Your task to perform on an android device: snooze an email in the gmail app Image 0: 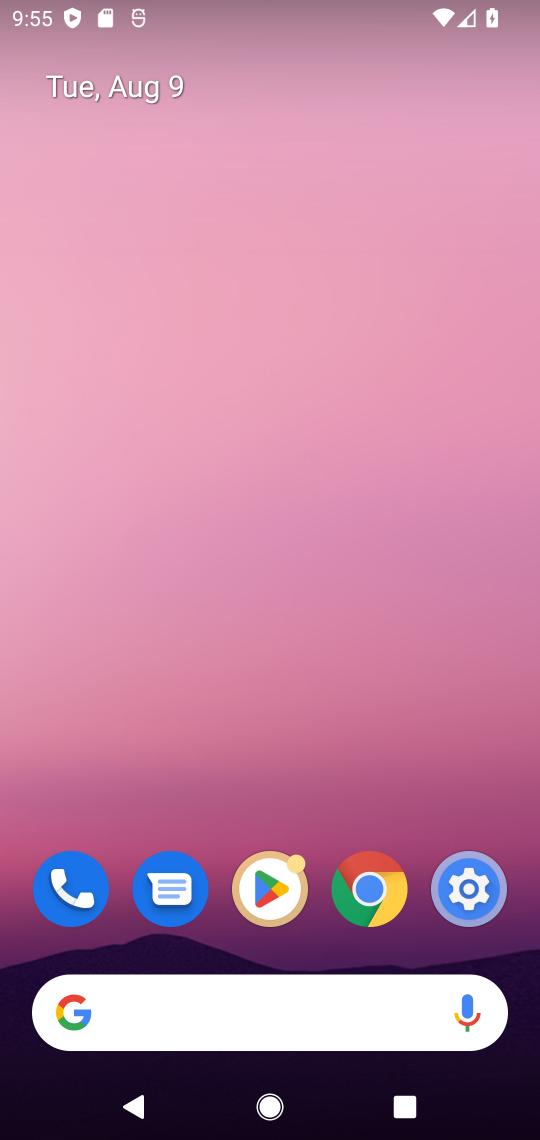
Step 0: drag from (284, 935) to (401, 50)
Your task to perform on an android device: snooze an email in the gmail app Image 1: 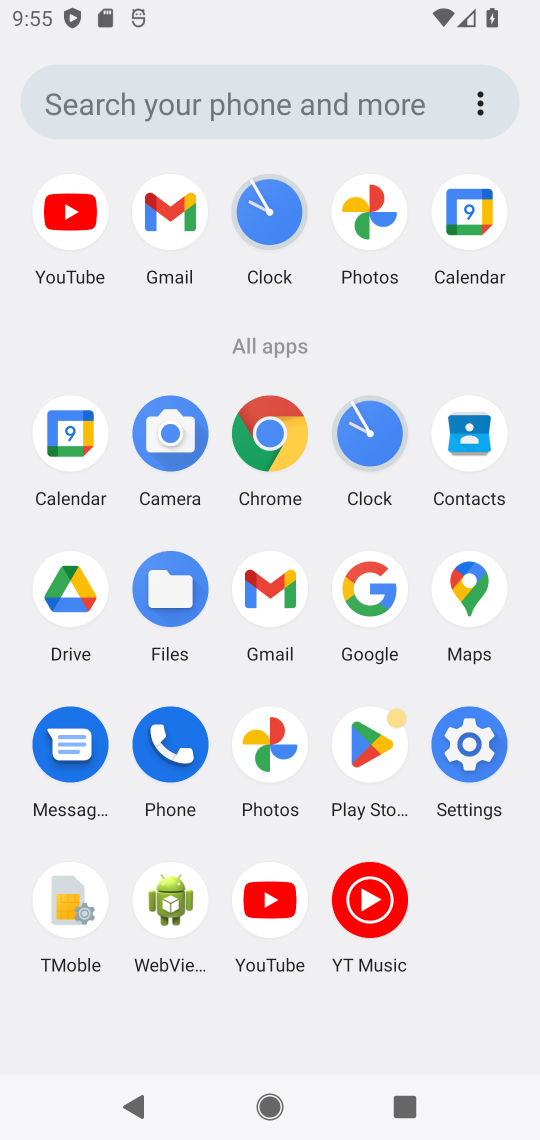
Step 1: click (188, 207)
Your task to perform on an android device: snooze an email in the gmail app Image 2: 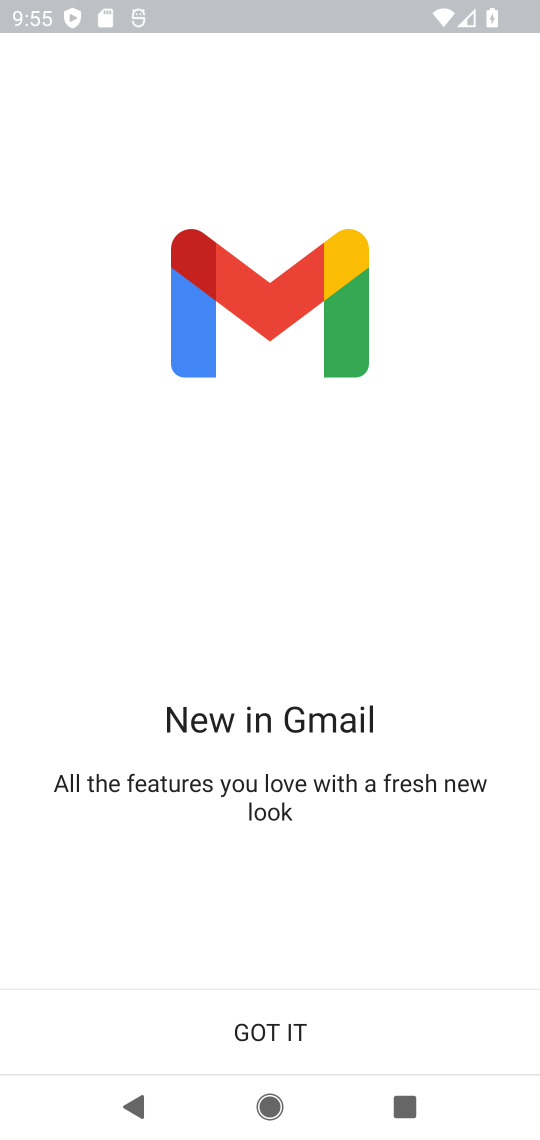
Step 2: click (301, 1083)
Your task to perform on an android device: snooze an email in the gmail app Image 3: 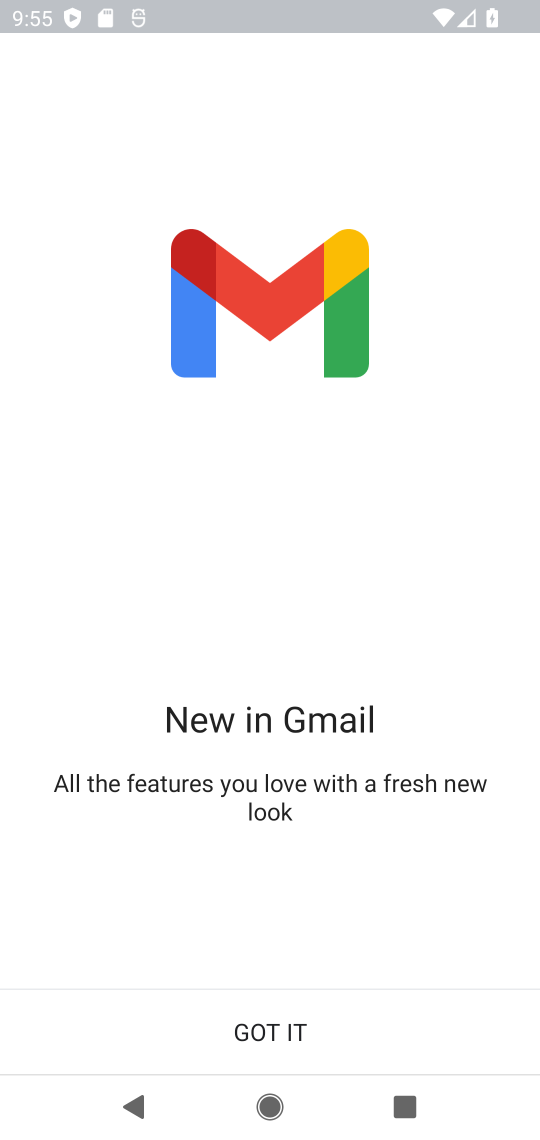
Step 3: click (293, 1043)
Your task to perform on an android device: snooze an email in the gmail app Image 4: 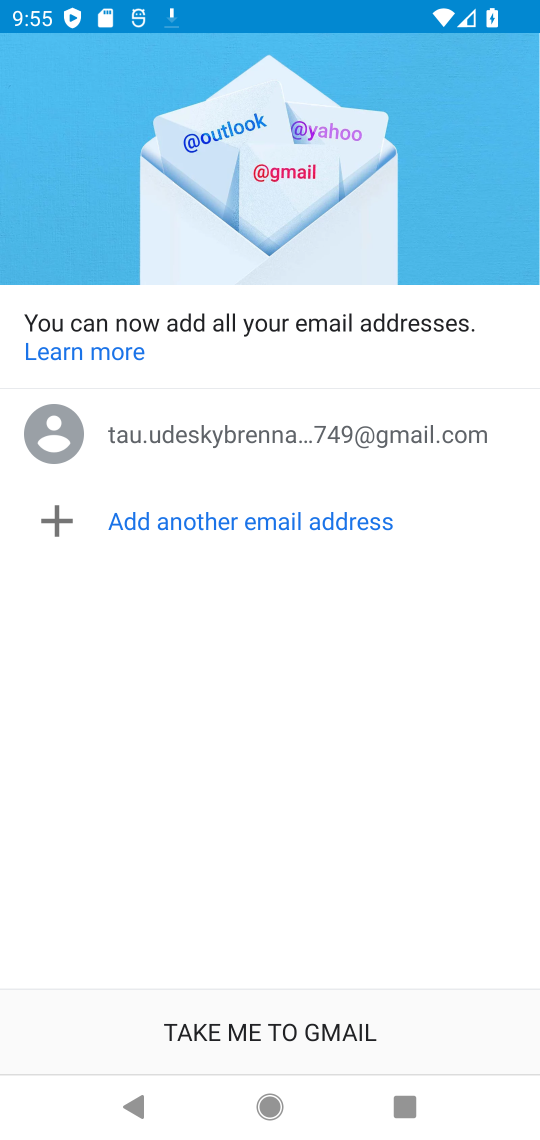
Step 4: click (325, 1029)
Your task to perform on an android device: snooze an email in the gmail app Image 5: 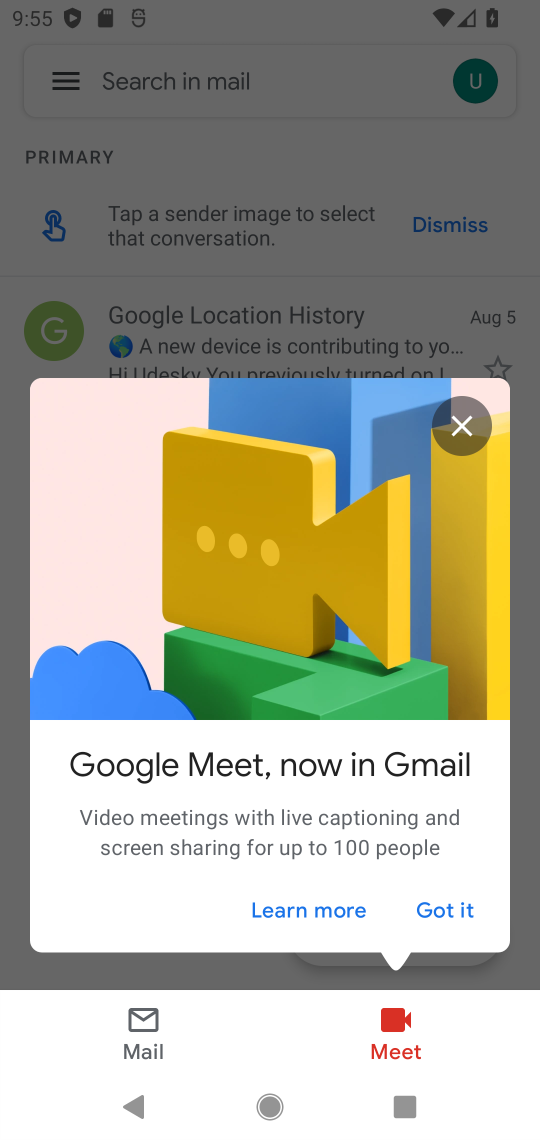
Step 5: click (460, 433)
Your task to perform on an android device: snooze an email in the gmail app Image 6: 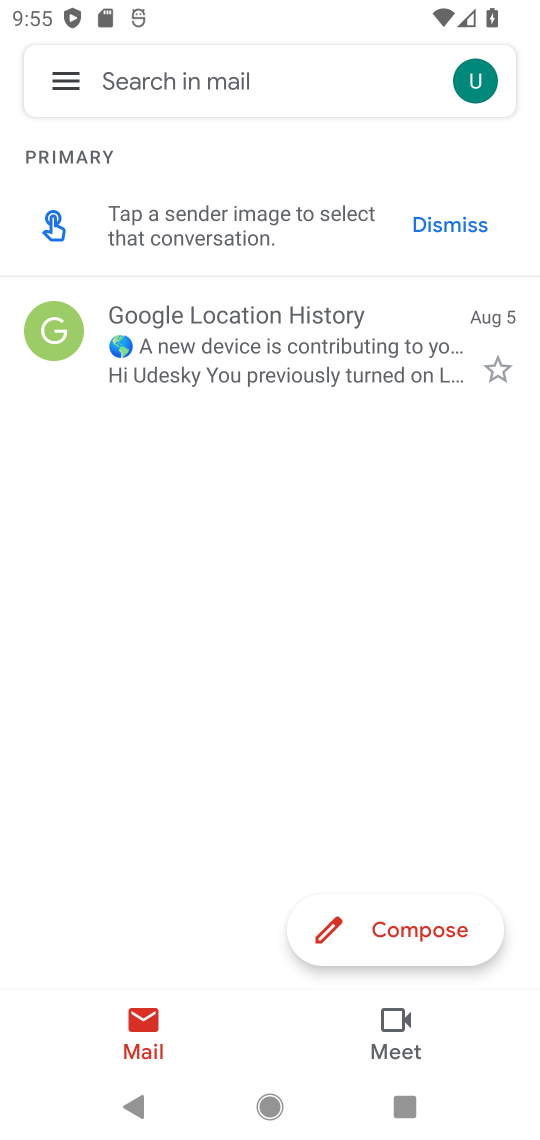
Step 6: click (273, 363)
Your task to perform on an android device: snooze an email in the gmail app Image 7: 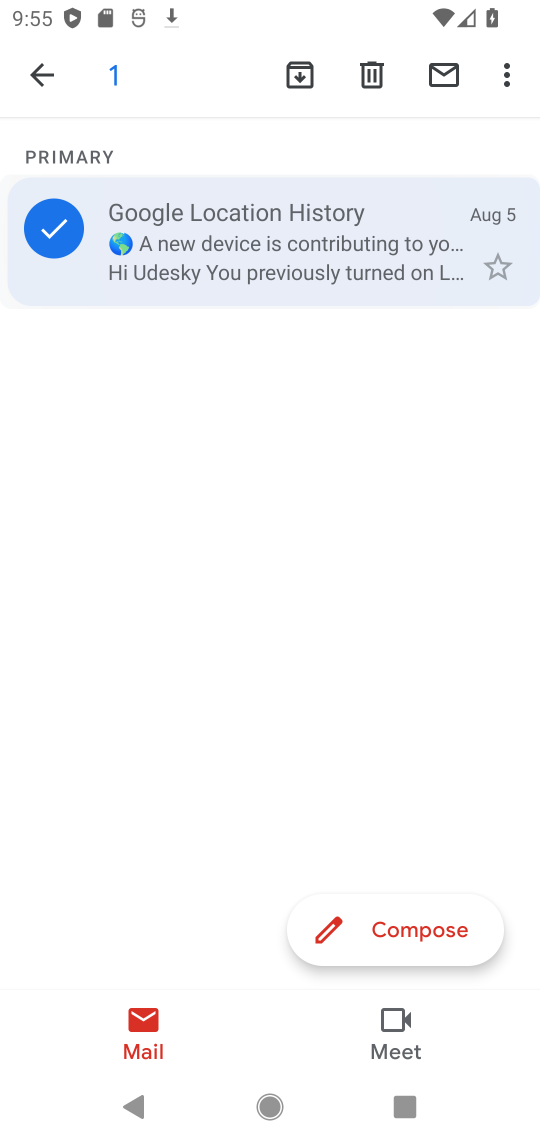
Step 7: click (507, 79)
Your task to perform on an android device: snooze an email in the gmail app Image 8: 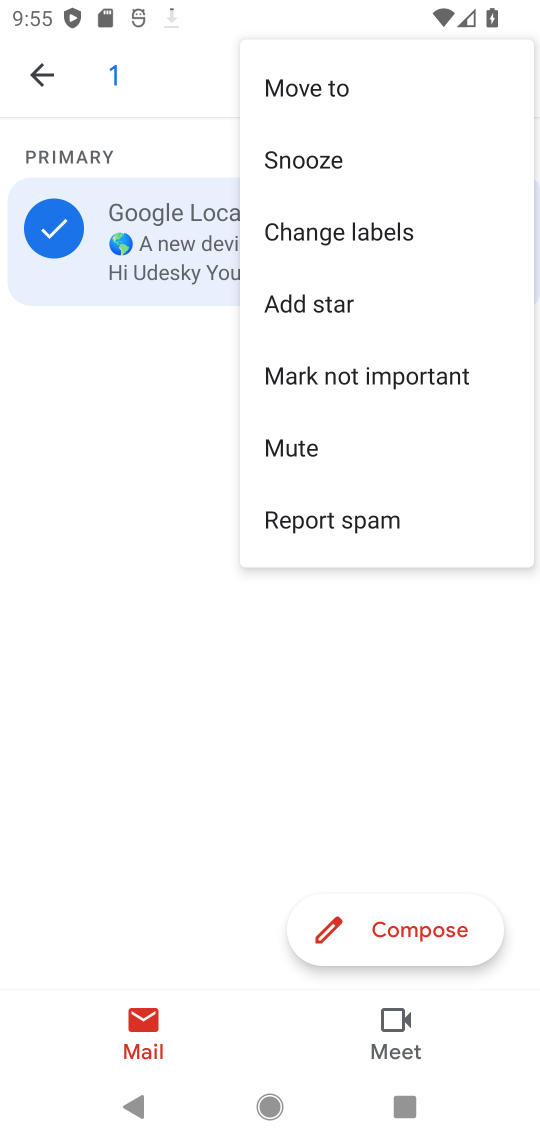
Step 8: click (383, 156)
Your task to perform on an android device: snooze an email in the gmail app Image 9: 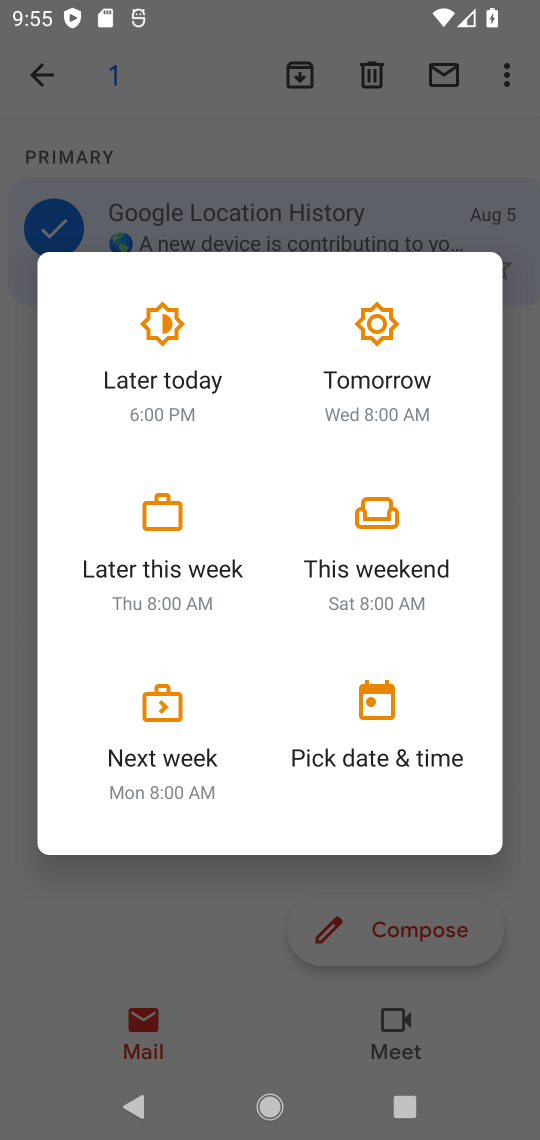
Step 9: click (161, 336)
Your task to perform on an android device: snooze an email in the gmail app Image 10: 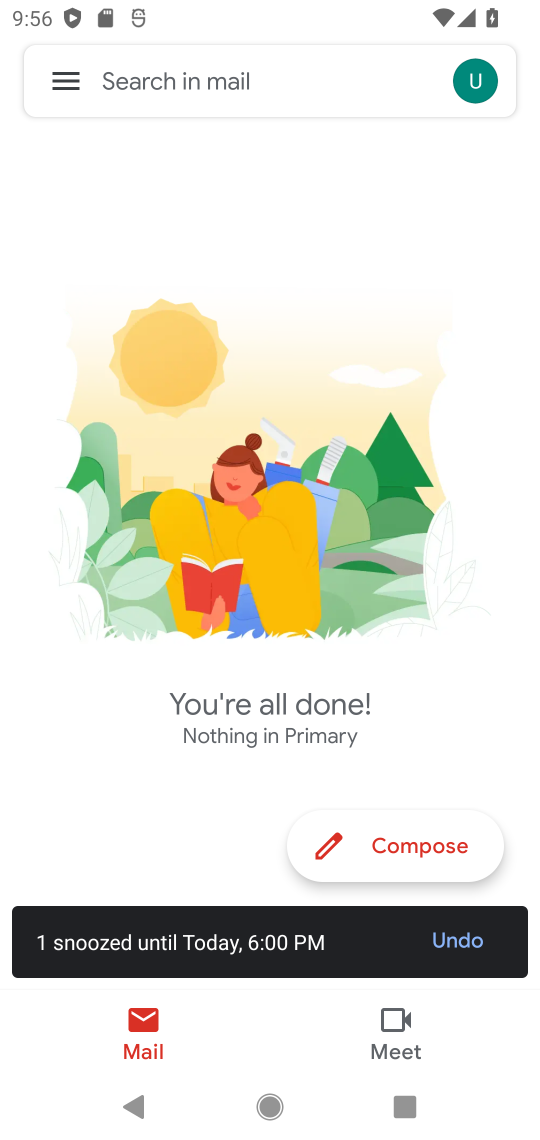
Step 10: task complete